Your task to perform on an android device: turn off location history Image 0: 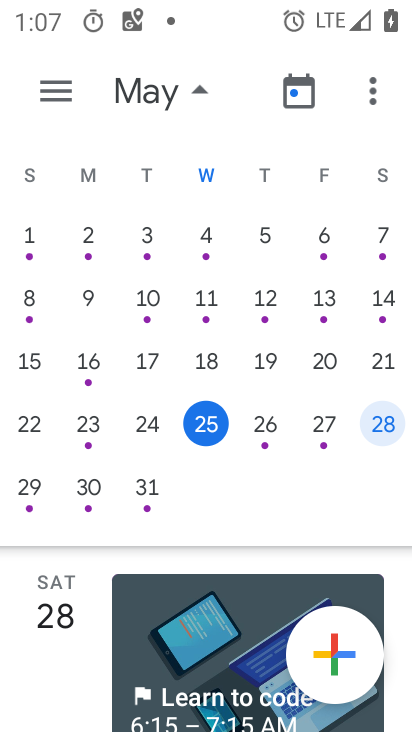
Step 0: press home button
Your task to perform on an android device: turn off location history Image 1: 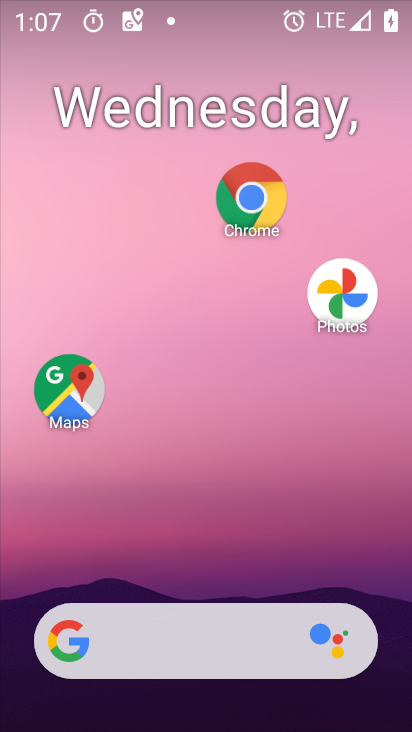
Step 1: drag from (180, 626) to (167, 10)
Your task to perform on an android device: turn off location history Image 2: 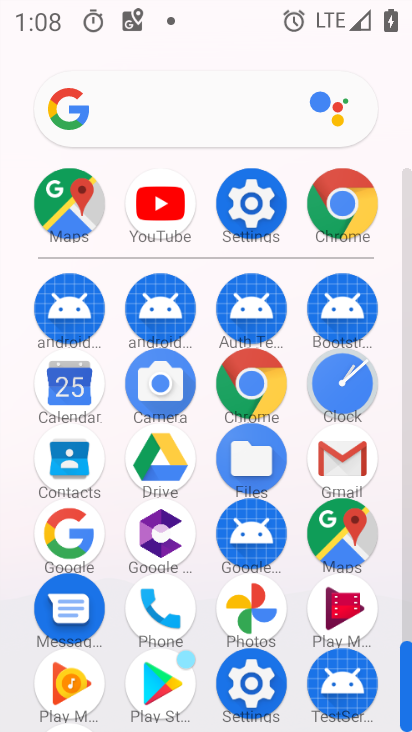
Step 2: click (237, 205)
Your task to perform on an android device: turn off location history Image 3: 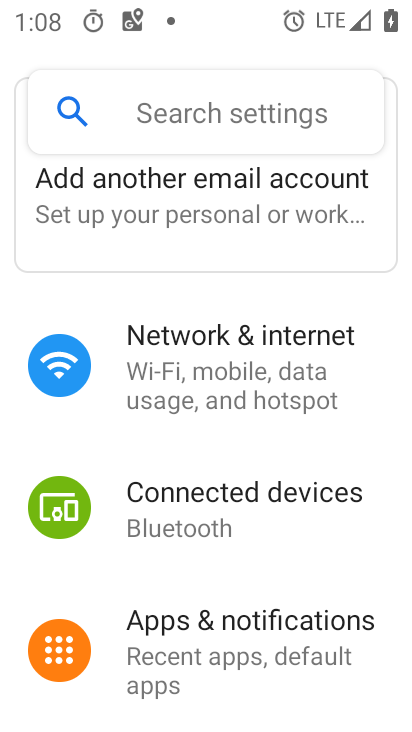
Step 3: drag from (248, 571) to (217, 201)
Your task to perform on an android device: turn off location history Image 4: 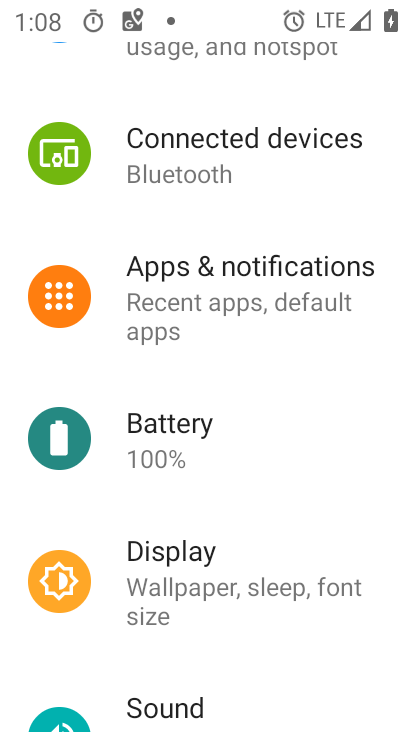
Step 4: drag from (241, 551) to (233, 252)
Your task to perform on an android device: turn off location history Image 5: 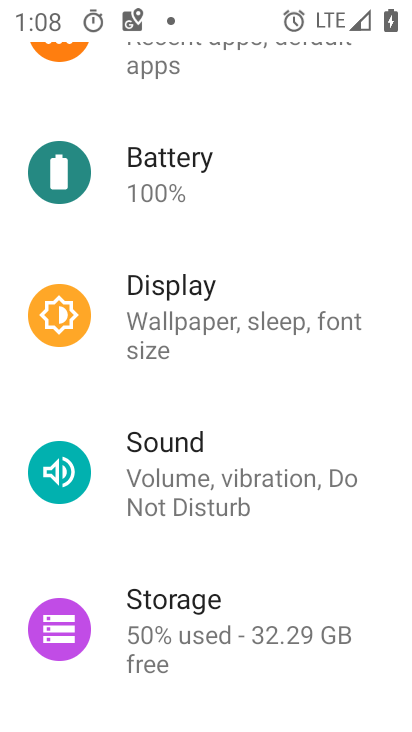
Step 5: drag from (225, 495) to (220, 197)
Your task to perform on an android device: turn off location history Image 6: 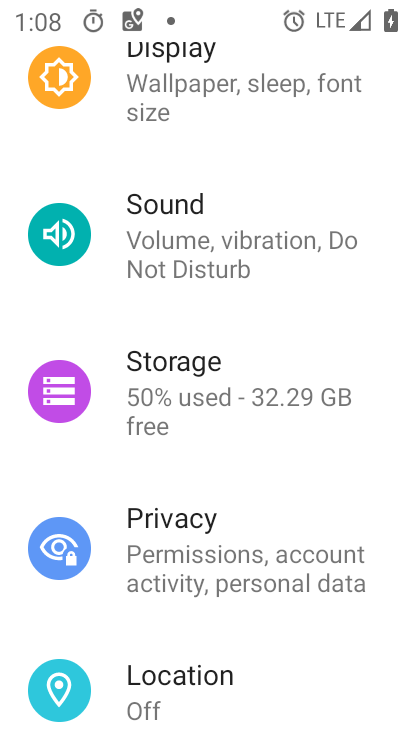
Step 6: click (199, 683)
Your task to perform on an android device: turn off location history Image 7: 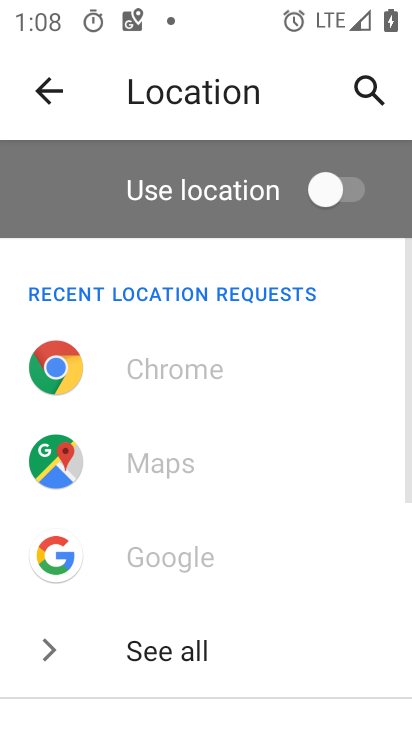
Step 7: drag from (228, 502) to (231, 180)
Your task to perform on an android device: turn off location history Image 8: 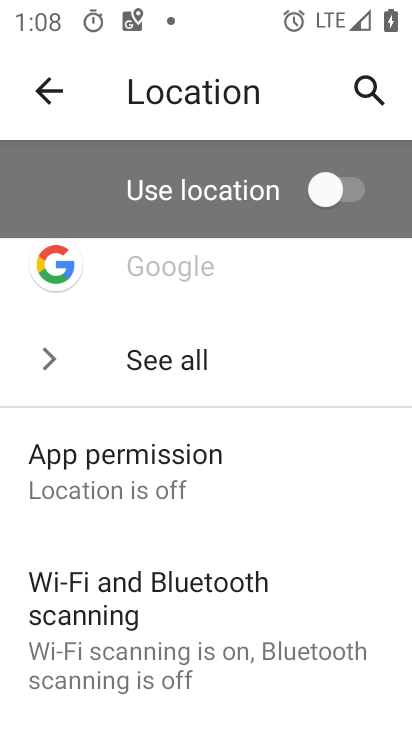
Step 8: drag from (198, 536) to (190, 255)
Your task to perform on an android device: turn off location history Image 9: 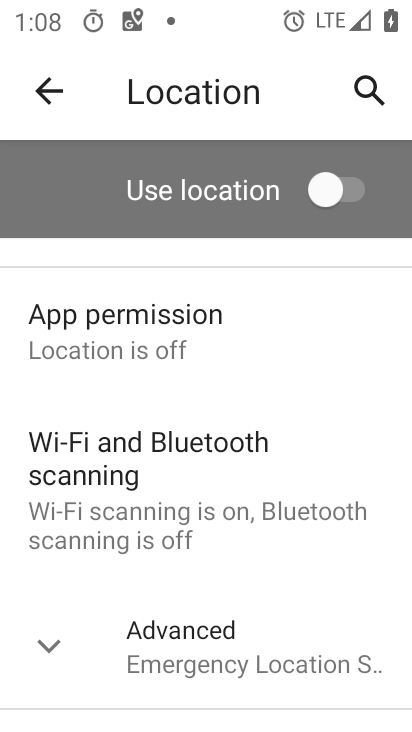
Step 9: click (174, 651)
Your task to perform on an android device: turn off location history Image 10: 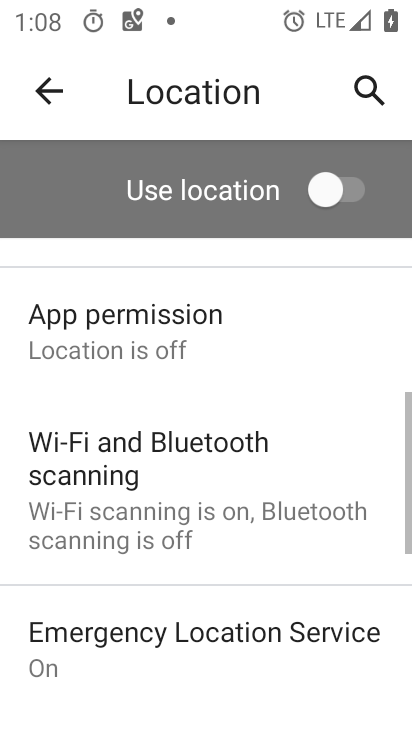
Step 10: drag from (174, 647) to (177, 349)
Your task to perform on an android device: turn off location history Image 11: 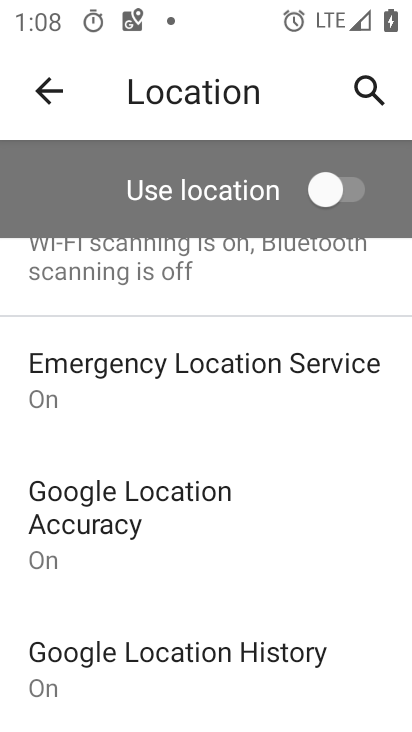
Step 11: click (195, 668)
Your task to perform on an android device: turn off location history Image 12: 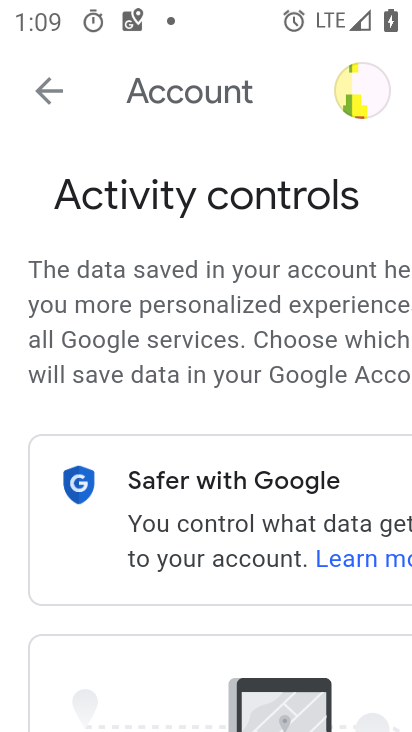
Step 12: task complete